Your task to perform on an android device: change the clock display to show seconds Image 0: 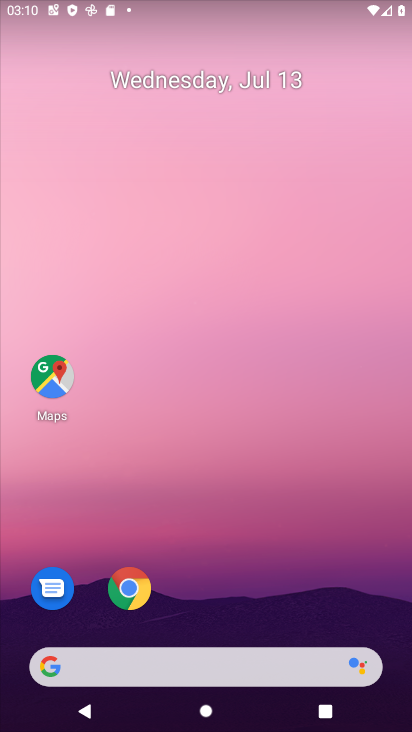
Step 0: drag from (398, 708) to (298, 172)
Your task to perform on an android device: change the clock display to show seconds Image 1: 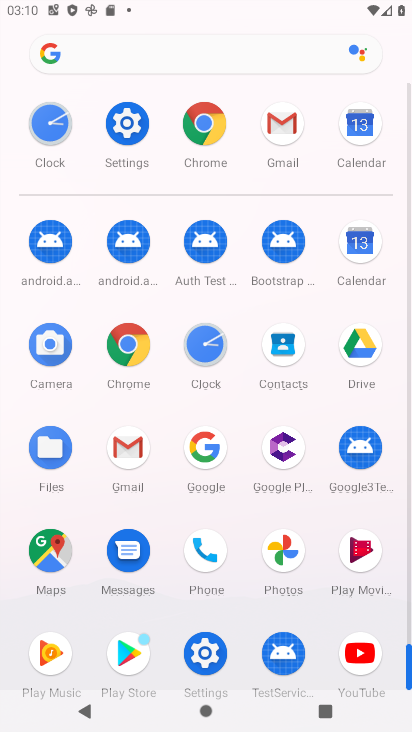
Step 1: click (204, 347)
Your task to perform on an android device: change the clock display to show seconds Image 2: 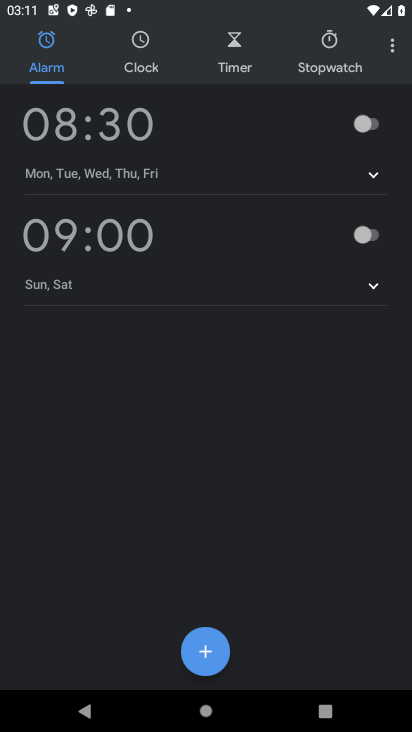
Step 2: click (390, 45)
Your task to perform on an android device: change the clock display to show seconds Image 3: 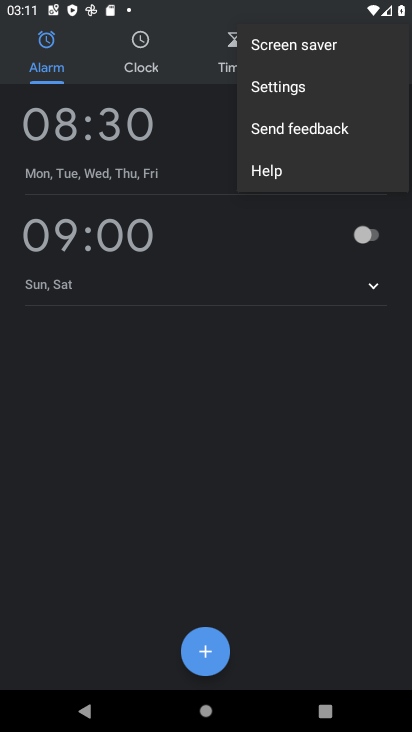
Step 3: click (282, 86)
Your task to perform on an android device: change the clock display to show seconds Image 4: 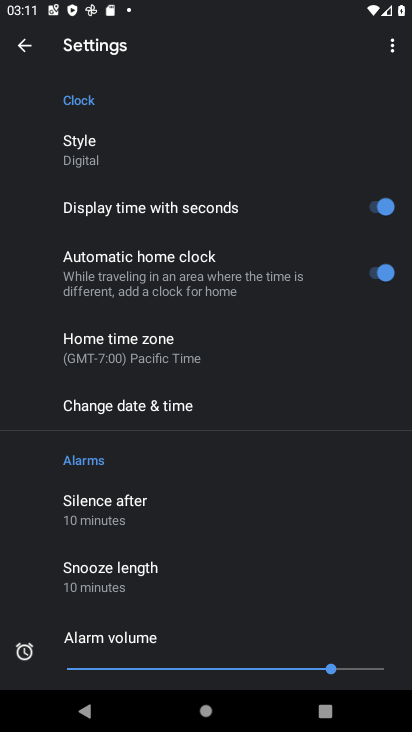
Step 4: task complete